Your task to perform on an android device: turn on notifications settings in the gmail app Image 0: 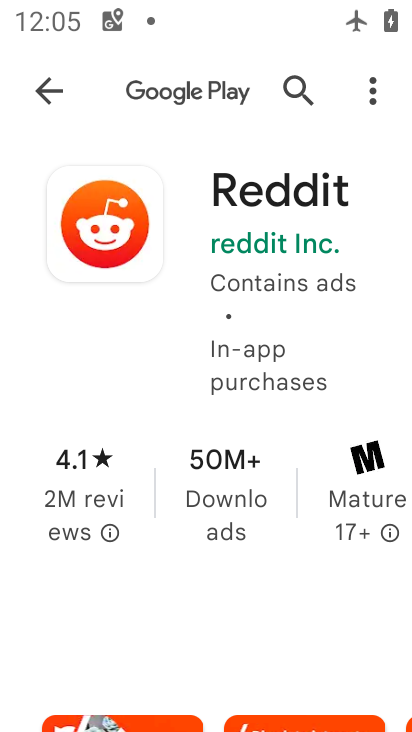
Step 0: press home button
Your task to perform on an android device: turn on notifications settings in the gmail app Image 1: 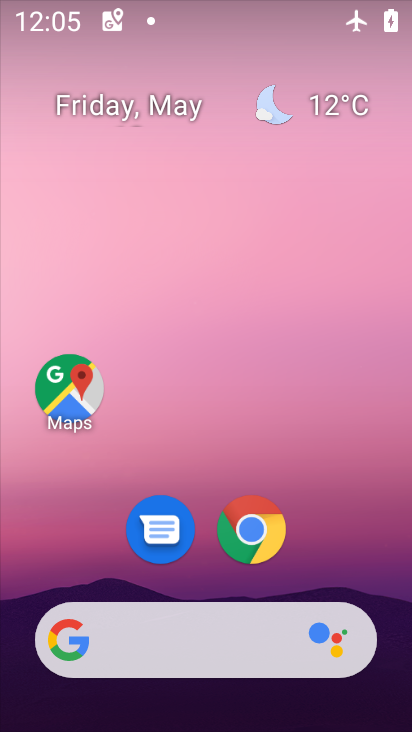
Step 1: drag from (309, 548) to (248, 165)
Your task to perform on an android device: turn on notifications settings in the gmail app Image 2: 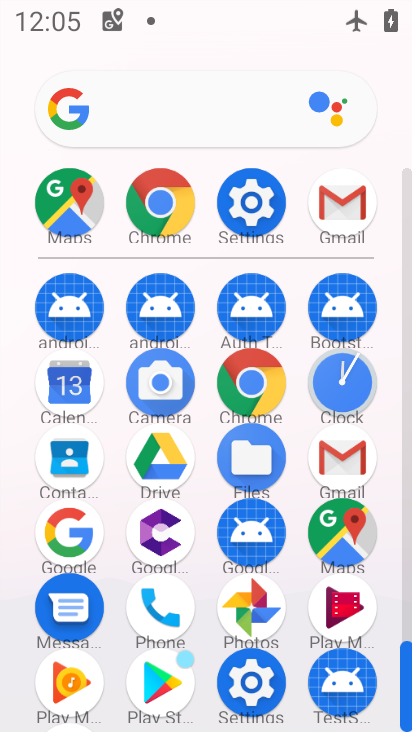
Step 2: click (341, 203)
Your task to perform on an android device: turn on notifications settings in the gmail app Image 3: 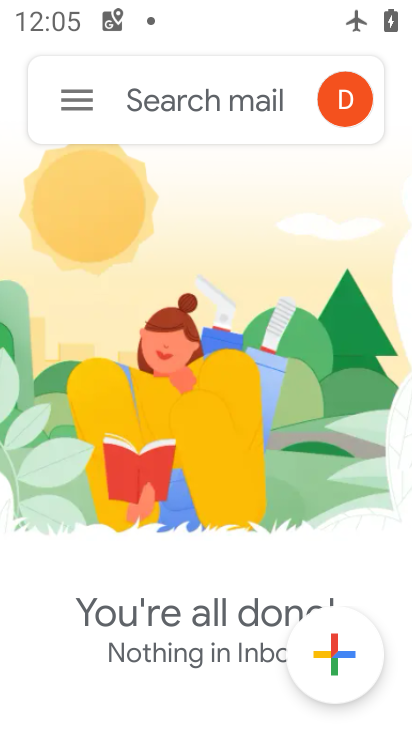
Step 3: click (73, 101)
Your task to perform on an android device: turn on notifications settings in the gmail app Image 4: 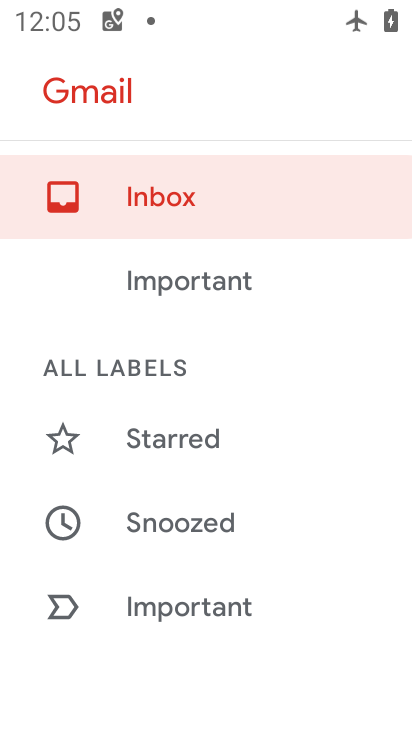
Step 4: drag from (219, 542) to (238, 105)
Your task to perform on an android device: turn on notifications settings in the gmail app Image 5: 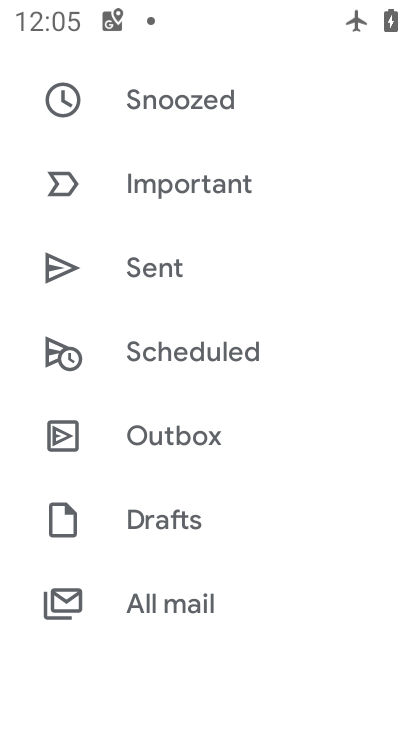
Step 5: drag from (243, 497) to (226, 148)
Your task to perform on an android device: turn on notifications settings in the gmail app Image 6: 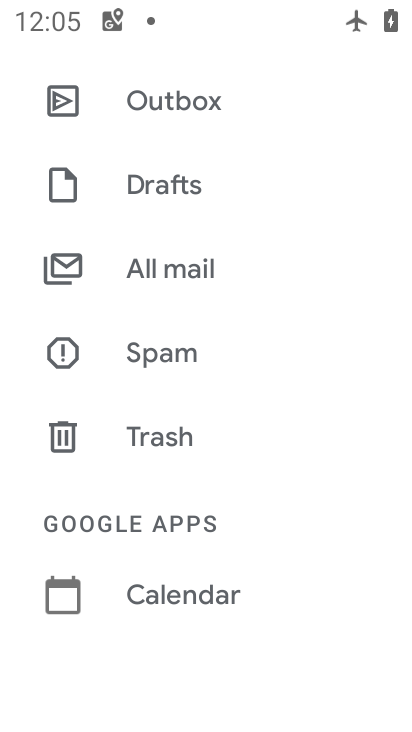
Step 6: drag from (231, 619) to (220, 204)
Your task to perform on an android device: turn on notifications settings in the gmail app Image 7: 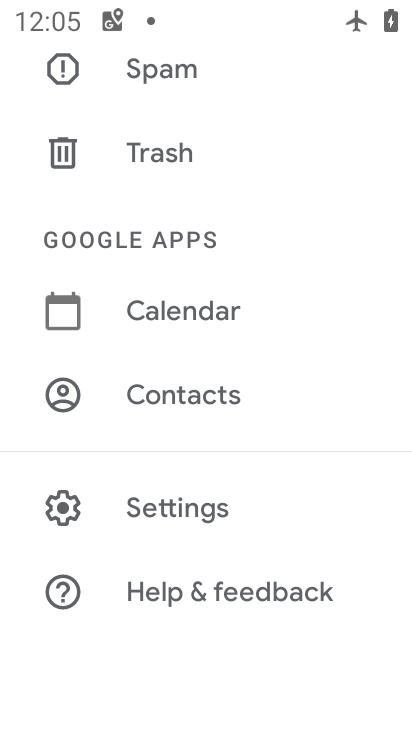
Step 7: click (182, 520)
Your task to perform on an android device: turn on notifications settings in the gmail app Image 8: 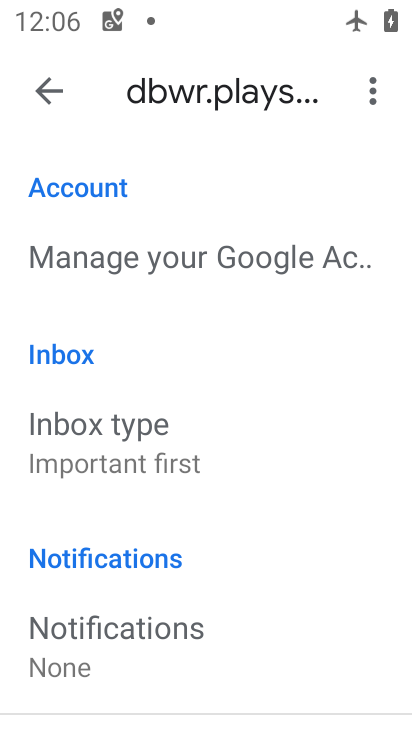
Step 8: click (97, 638)
Your task to perform on an android device: turn on notifications settings in the gmail app Image 9: 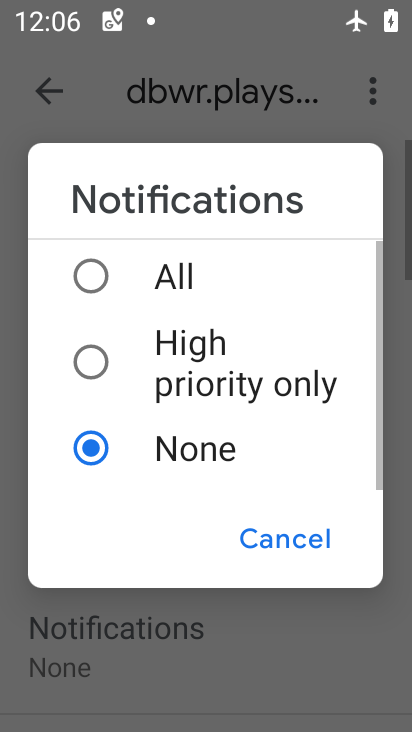
Step 9: click (147, 277)
Your task to perform on an android device: turn on notifications settings in the gmail app Image 10: 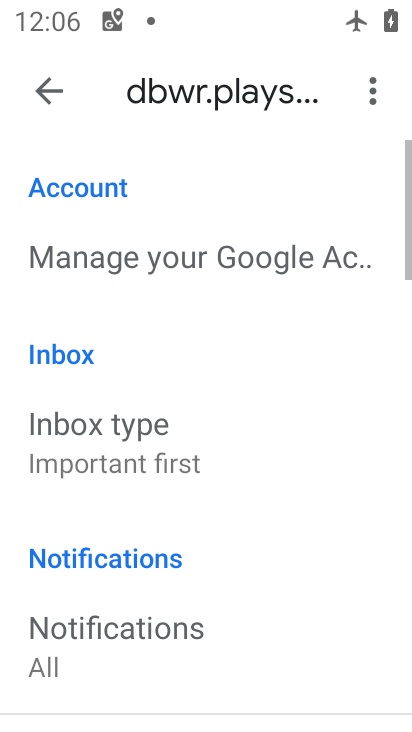
Step 10: task complete